Your task to perform on an android device: add a contact in the contacts app Image 0: 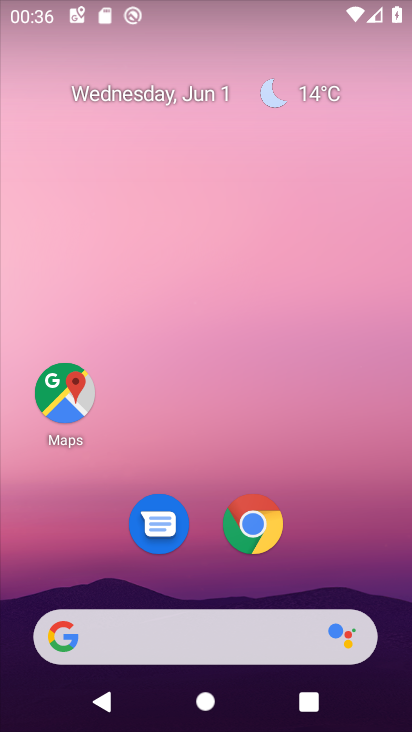
Step 0: drag from (283, 428) to (265, 3)
Your task to perform on an android device: add a contact in the contacts app Image 1: 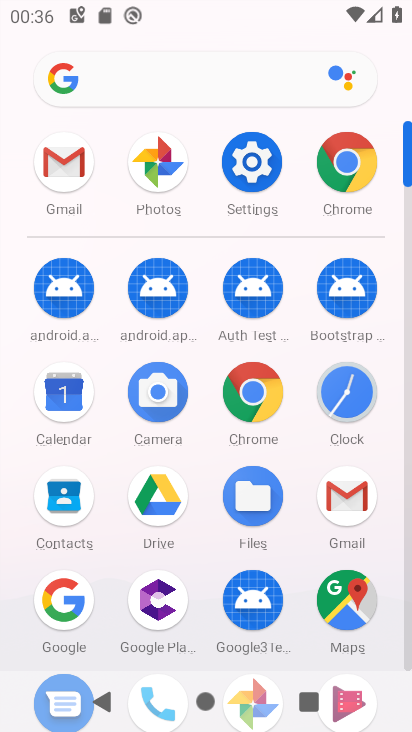
Step 1: click (75, 487)
Your task to perform on an android device: add a contact in the contacts app Image 2: 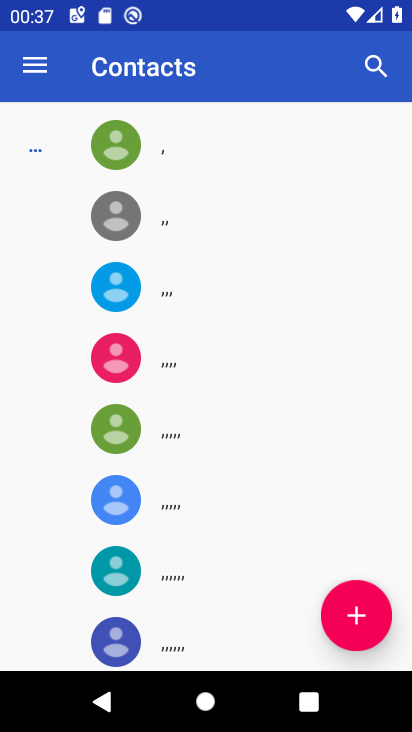
Step 2: click (337, 626)
Your task to perform on an android device: add a contact in the contacts app Image 3: 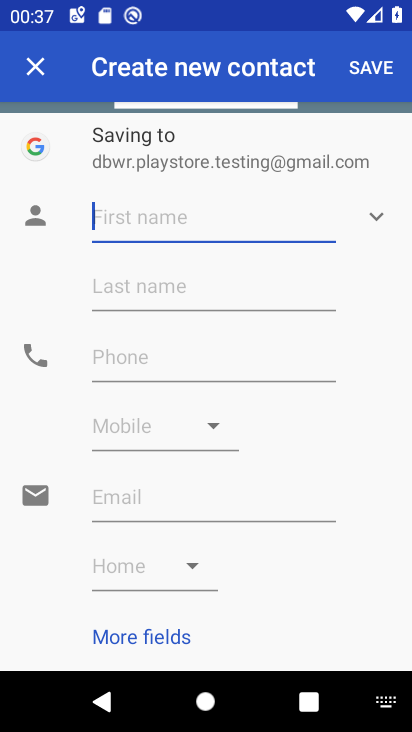
Step 3: type "Sumant Sanjay"
Your task to perform on an android device: add a contact in the contacts app Image 4: 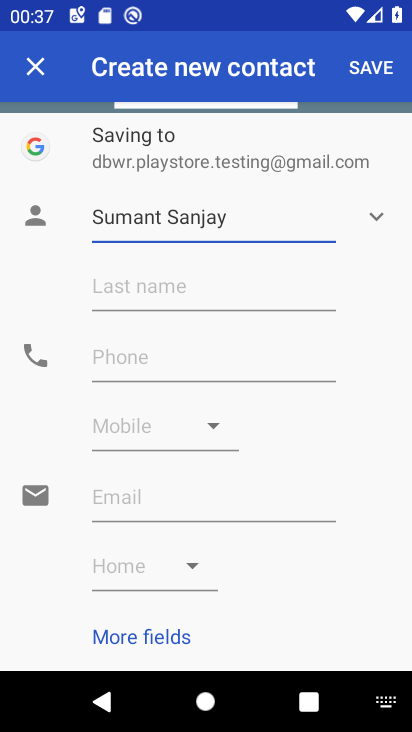
Step 4: click (188, 362)
Your task to perform on an android device: add a contact in the contacts app Image 5: 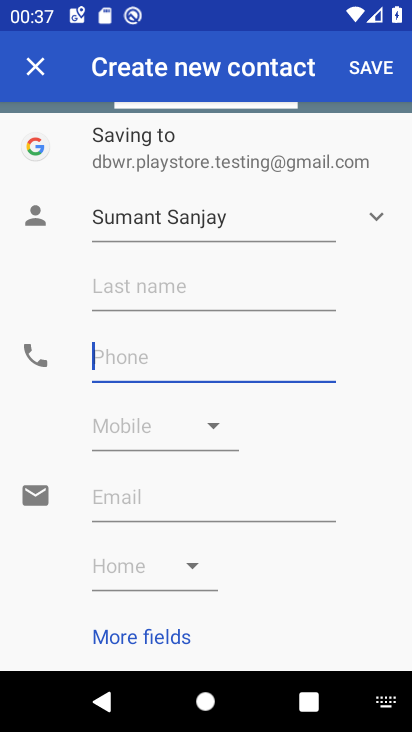
Step 5: type "011223998877"
Your task to perform on an android device: add a contact in the contacts app Image 6: 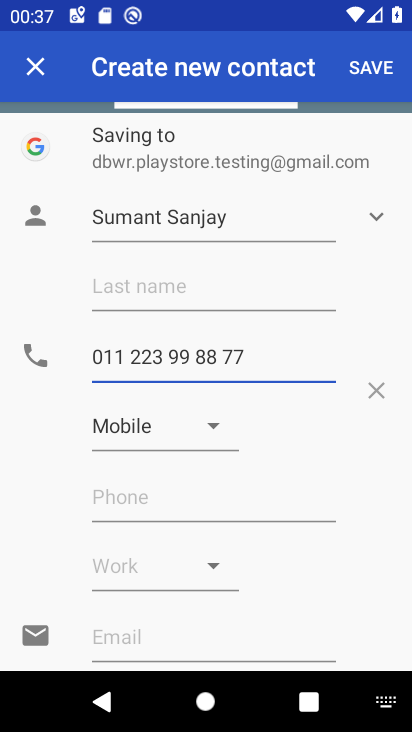
Step 6: click (383, 68)
Your task to perform on an android device: add a contact in the contacts app Image 7: 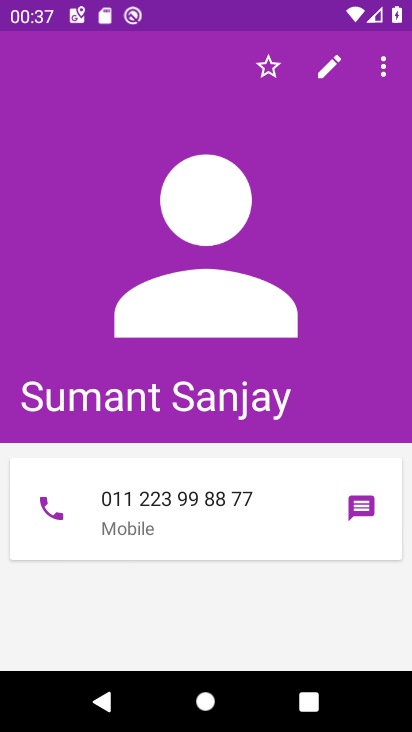
Step 7: task complete